Your task to perform on an android device: Search for Mexican restaurants on Maps Image 0: 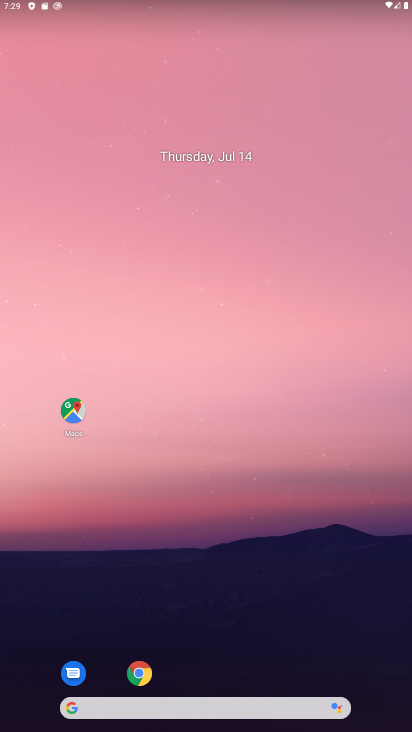
Step 0: drag from (346, 662) to (322, 218)
Your task to perform on an android device: Search for Mexican restaurants on Maps Image 1: 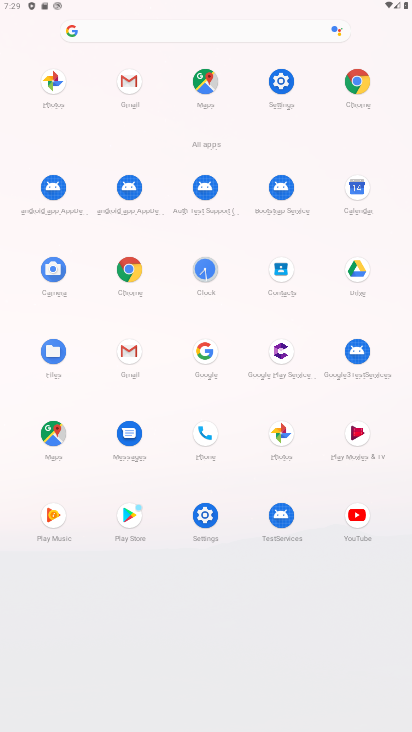
Step 1: click (58, 437)
Your task to perform on an android device: Search for Mexican restaurants on Maps Image 2: 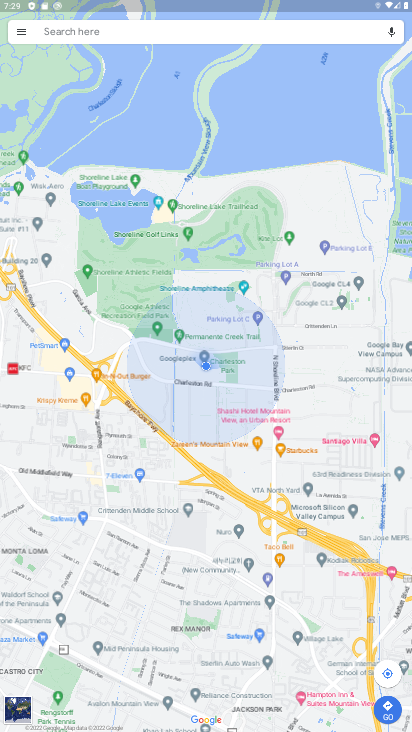
Step 2: click (172, 32)
Your task to perform on an android device: Search for Mexican restaurants on Maps Image 3: 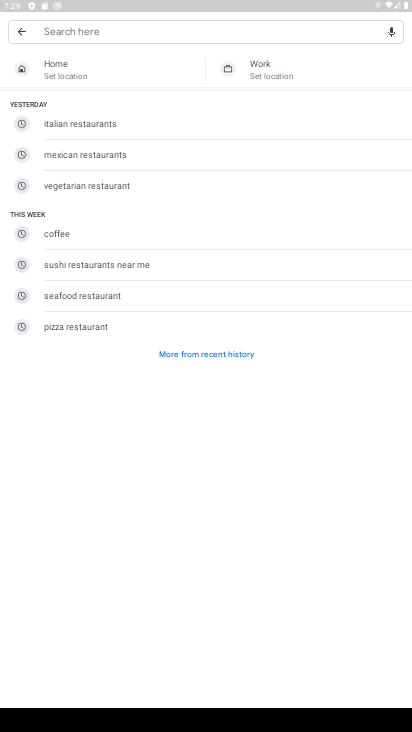
Step 3: type "mexcian restaurants"
Your task to perform on an android device: Search for Mexican restaurants on Maps Image 4: 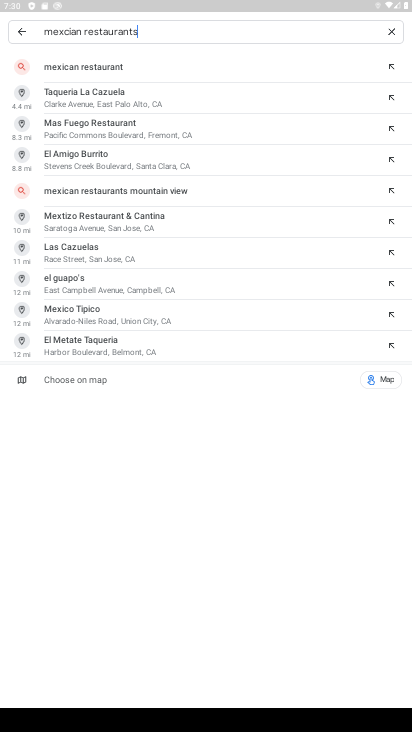
Step 4: click (261, 66)
Your task to perform on an android device: Search for Mexican restaurants on Maps Image 5: 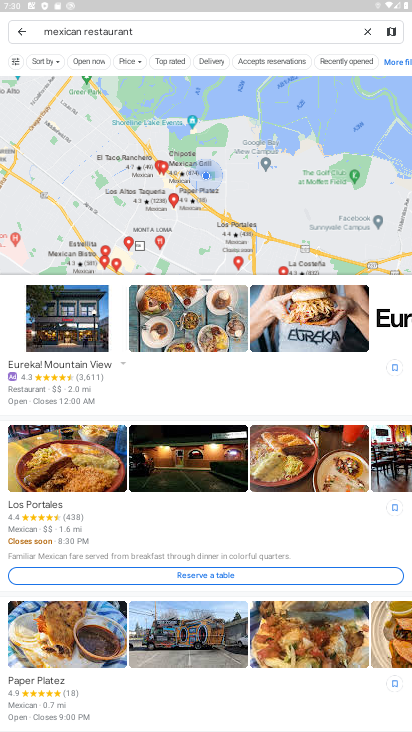
Step 5: task complete